Your task to perform on an android device: turn on sleep mode Image 0: 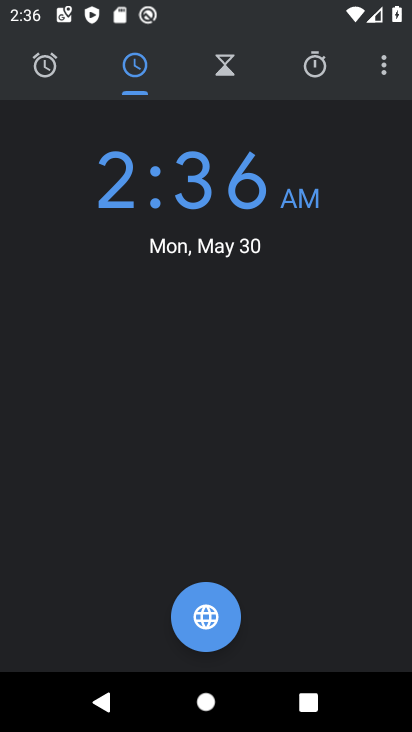
Step 0: press home button
Your task to perform on an android device: turn on sleep mode Image 1: 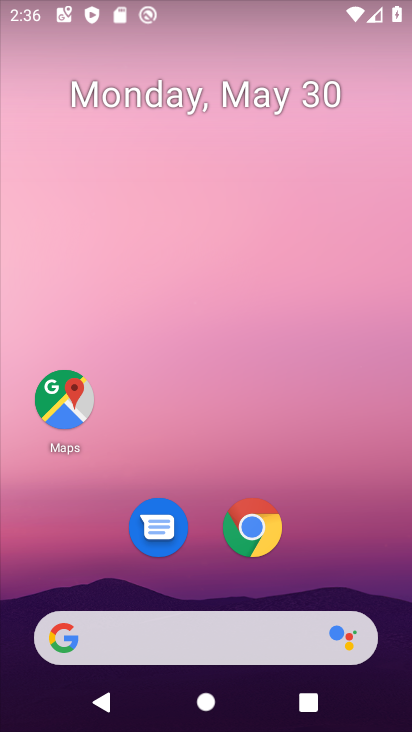
Step 1: drag from (305, 556) to (302, 98)
Your task to perform on an android device: turn on sleep mode Image 2: 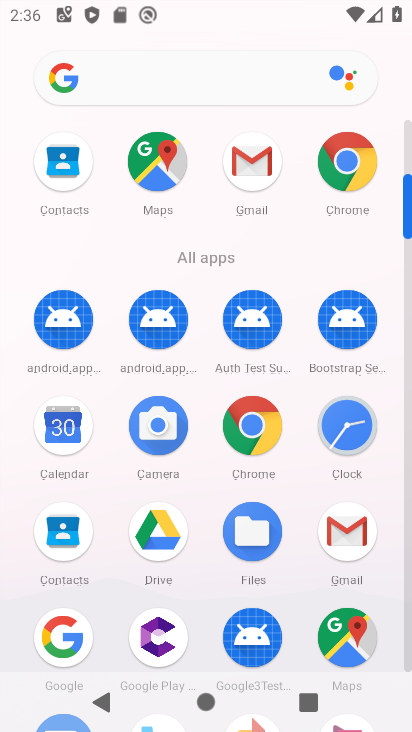
Step 2: drag from (221, 374) to (231, 109)
Your task to perform on an android device: turn on sleep mode Image 3: 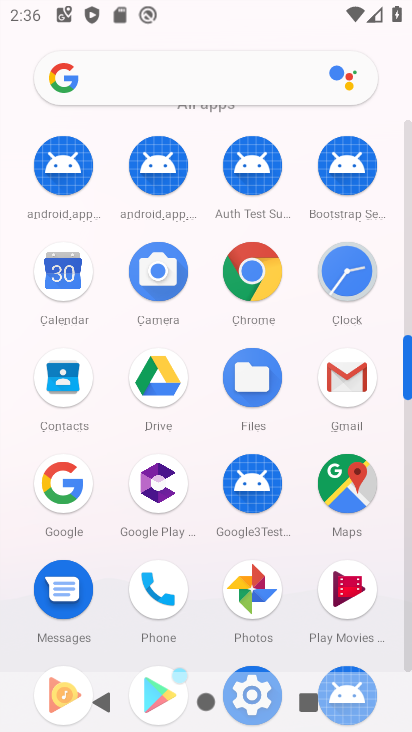
Step 3: drag from (309, 444) to (303, 219)
Your task to perform on an android device: turn on sleep mode Image 4: 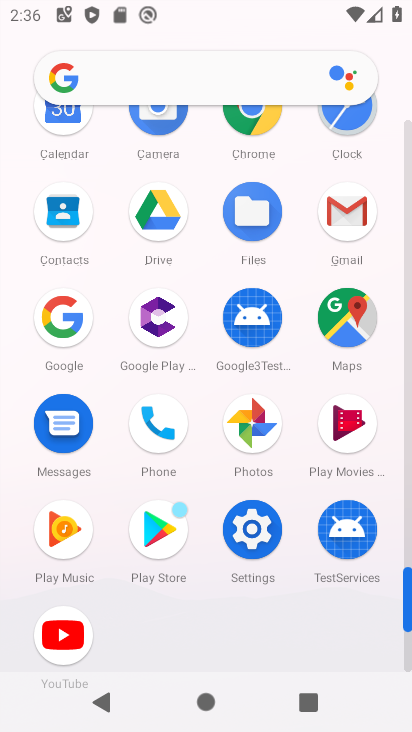
Step 4: click (259, 529)
Your task to perform on an android device: turn on sleep mode Image 5: 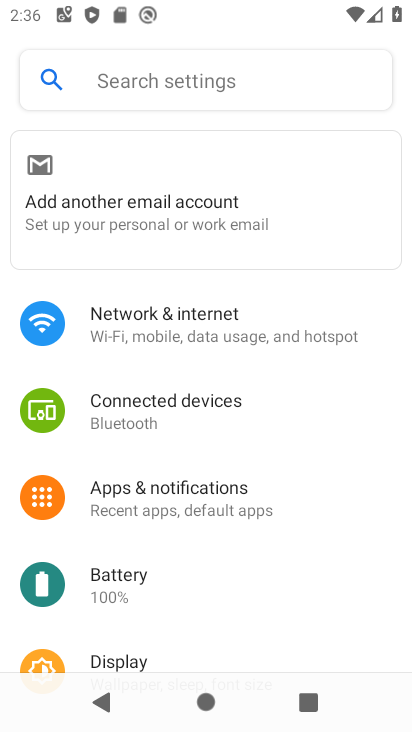
Step 5: drag from (275, 603) to (277, 261)
Your task to perform on an android device: turn on sleep mode Image 6: 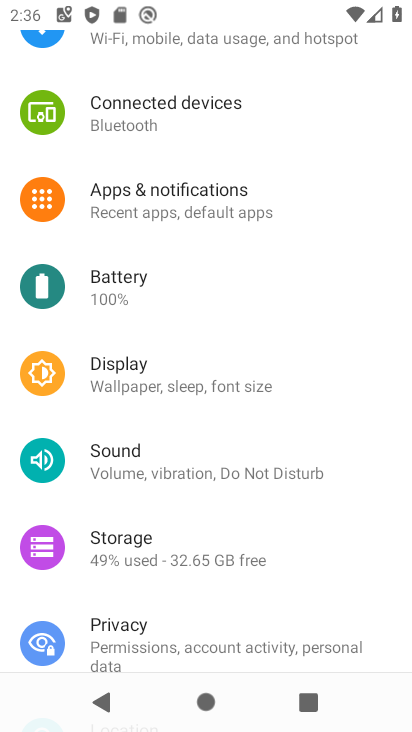
Step 6: click (183, 380)
Your task to perform on an android device: turn on sleep mode Image 7: 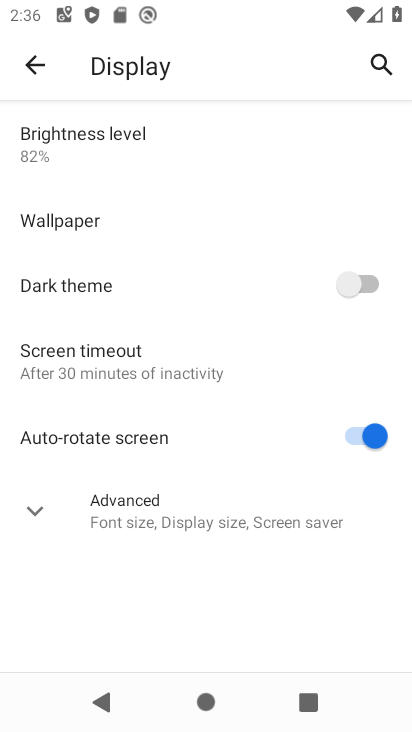
Step 7: task complete